Your task to perform on an android device: Go to accessibility settings Image 0: 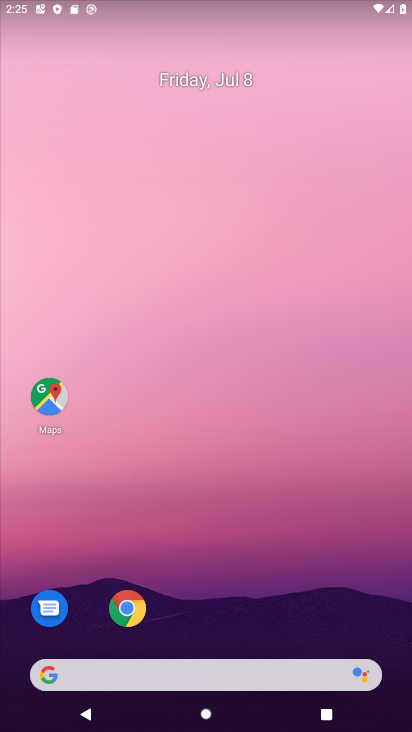
Step 0: drag from (299, 703) to (284, 20)
Your task to perform on an android device: Go to accessibility settings Image 1: 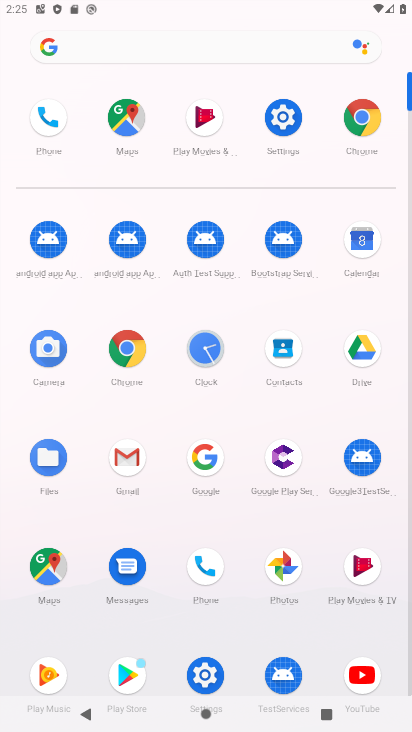
Step 1: click (281, 119)
Your task to perform on an android device: Go to accessibility settings Image 2: 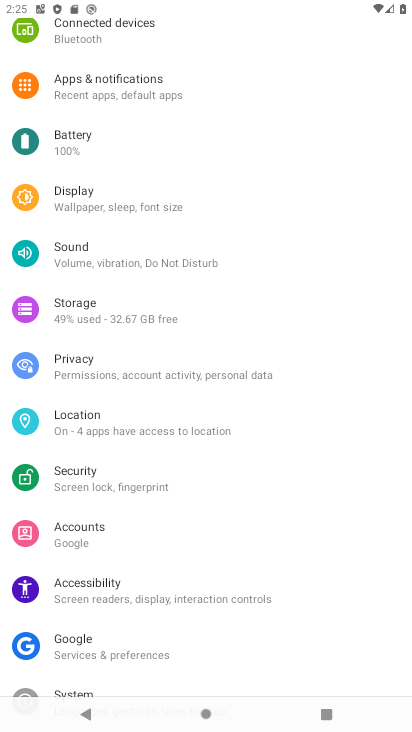
Step 2: click (130, 583)
Your task to perform on an android device: Go to accessibility settings Image 3: 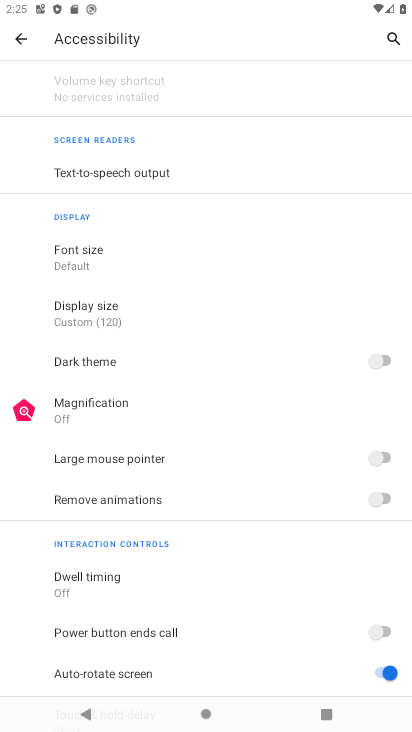
Step 3: task complete